Your task to perform on an android device: Go to eBay Image 0: 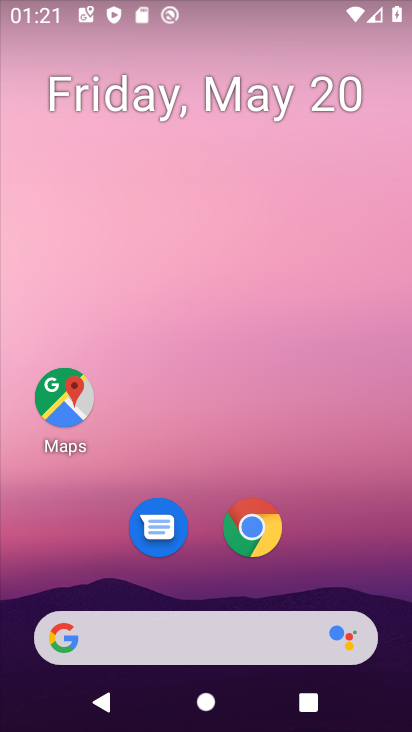
Step 0: press home button
Your task to perform on an android device: Go to eBay Image 1: 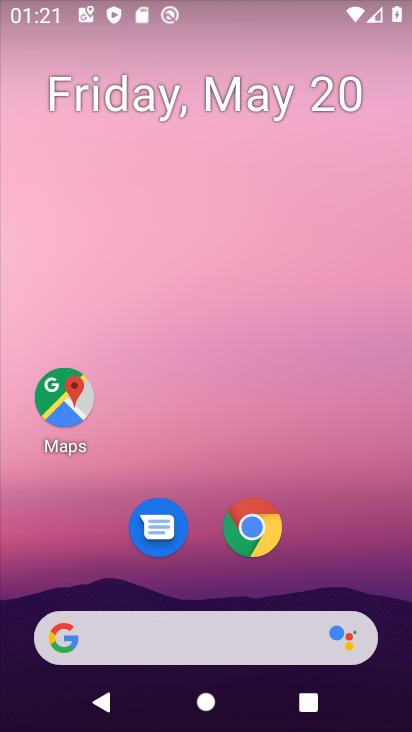
Step 1: click (254, 537)
Your task to perform on an android device: Go to eBay Image 2: 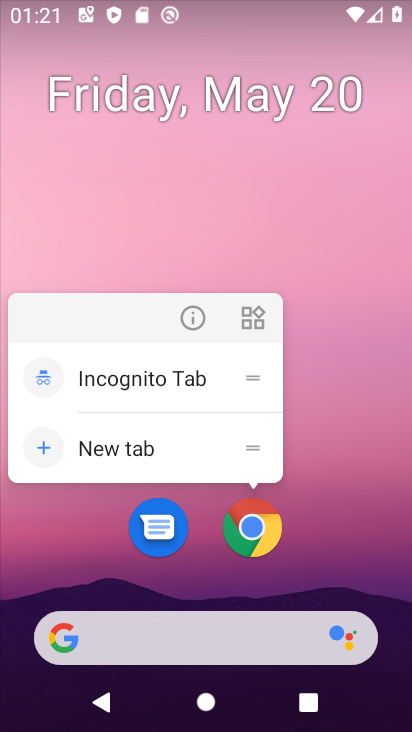
Step 2: click (250, 530)
Your task to perform on an android device: Go to eBay Image 3: 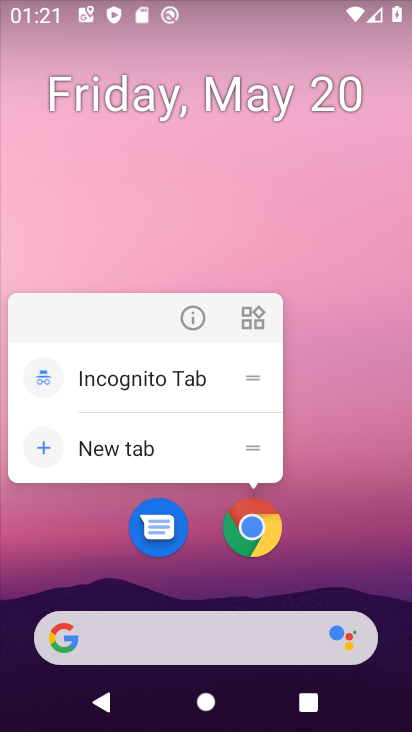
Step 3: click (257, 545)
Your task to perform on an android device: Go to eBay Image 4: 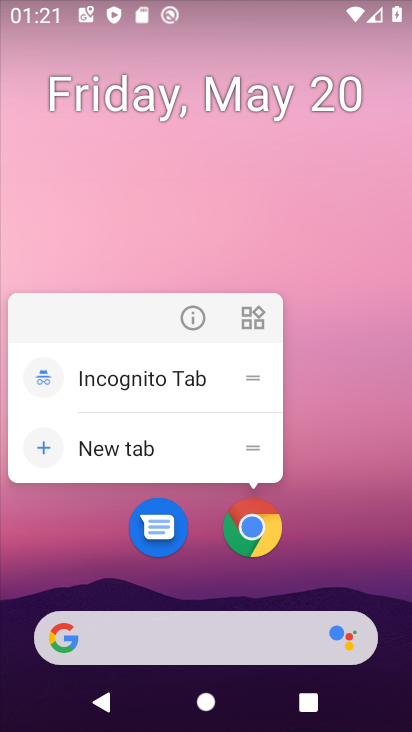
Step 4: click (248, 539)
Your task to perform on an android device: Go to eBay Image 5: 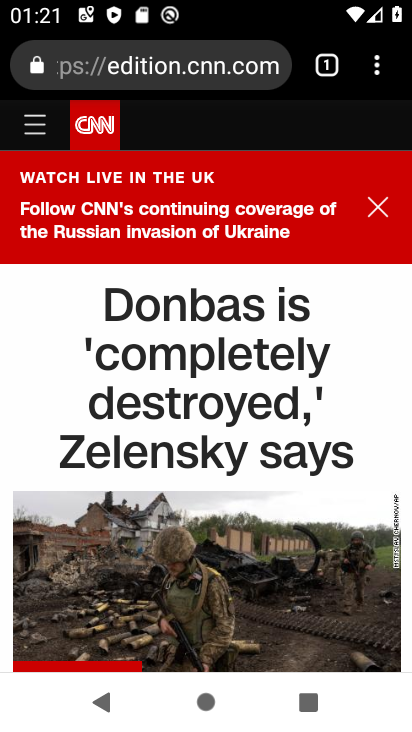
Step 5: drag from (376, 70) to (258, 127)
Your task to perform on an android device: Go to eBay Image 6: 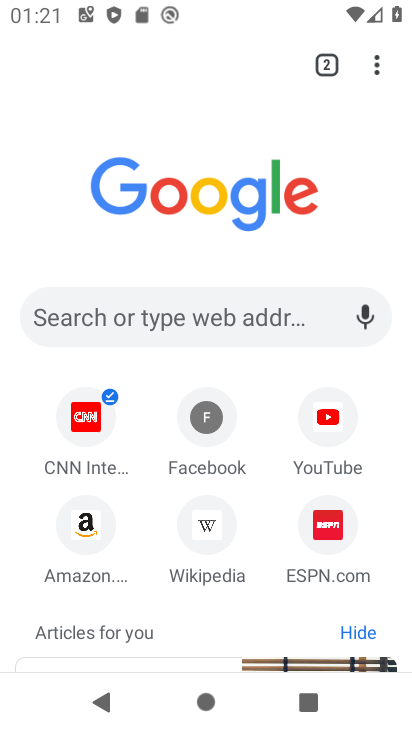
Step 6: click (157, 308)
Your task to perform on an android device: Go to eBay Image 7: 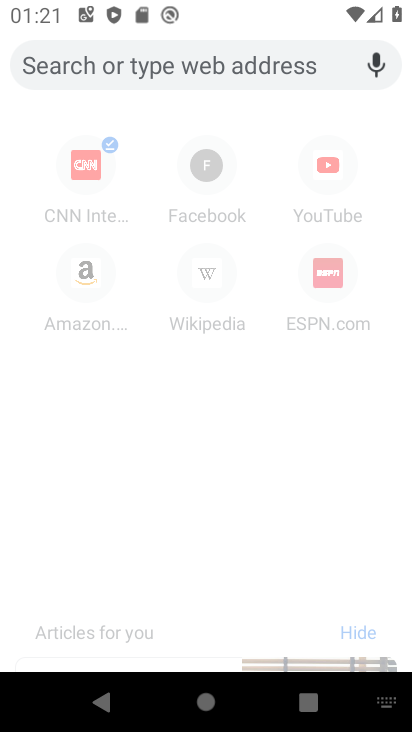
Step 7: type "ebay"
Your task to perform on an android device: Go to eBay Image 8: 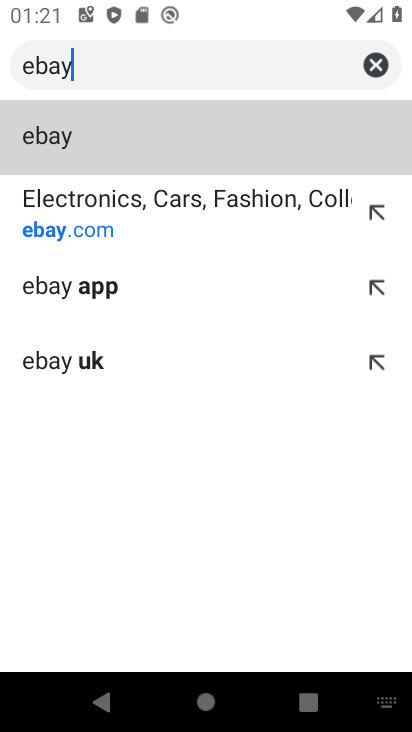
Step 8: click (187, 200)
Your task to perform on an android device: Go to eBay Image 9: 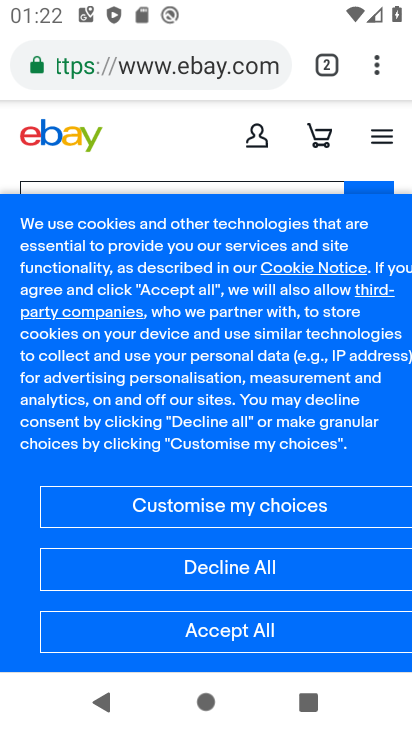
Step 9: task complete